Your task to perform on an android device: add a contact Image 0: 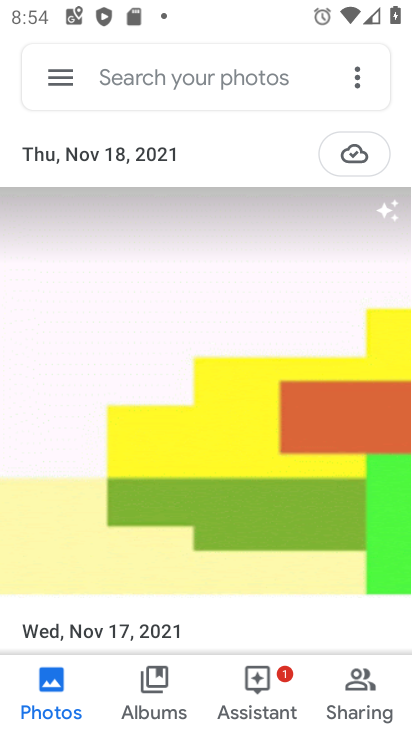
Step 0: press home button
Your task to perform on an android device: add a contact Image 1: 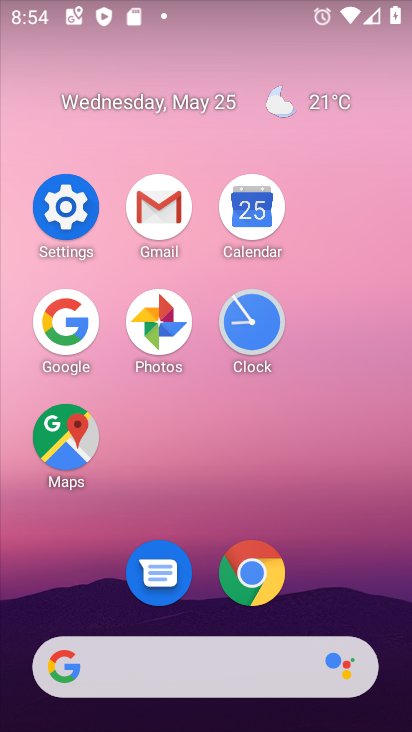
Step 1: drag from (315, 574) to (341, 204)
Your task to perform on an android device: add a contact Image 2: 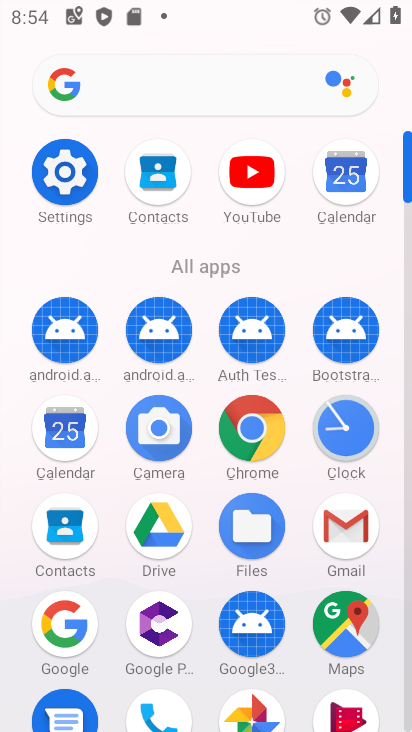
Step 2: click (75, 510)
Your task to perform on an android device: add a contact Image 3: 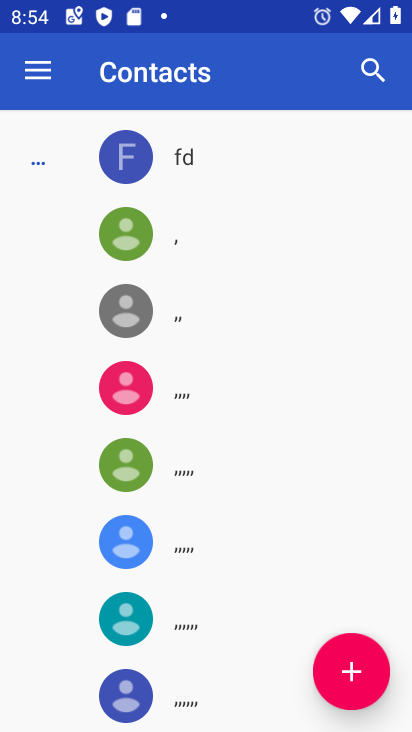
Step 3: click (339, 694)
Your task to perform on an android device: add a contact Image 4: 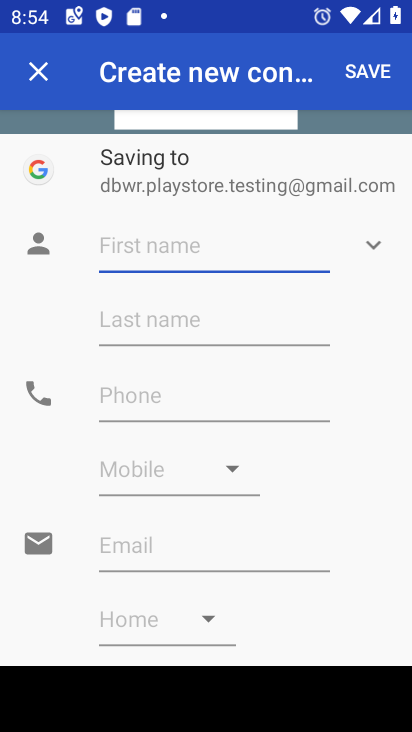
Step 4: type "kity"
Your task to perform on an android device: add a contact Image 5: 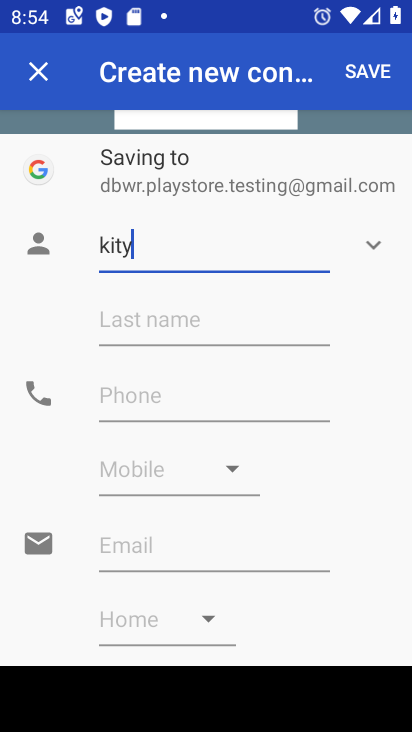
Step 5: click (242, 397)
Your task to perform on an android device: add a contact Image 6: 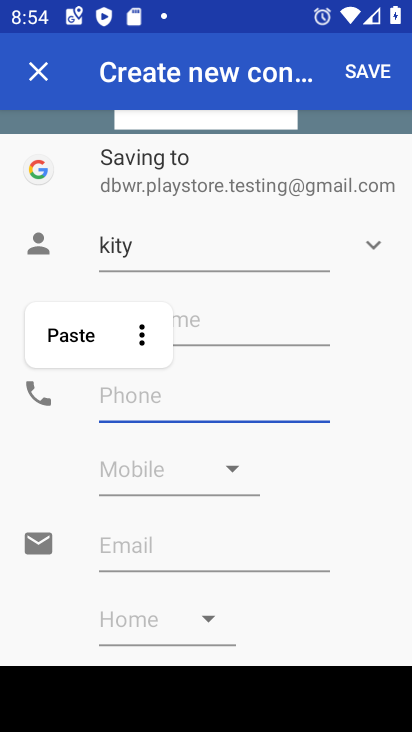
Step 6: type "3344552234"
Your task to perform on an android device: add a contact Image 7: 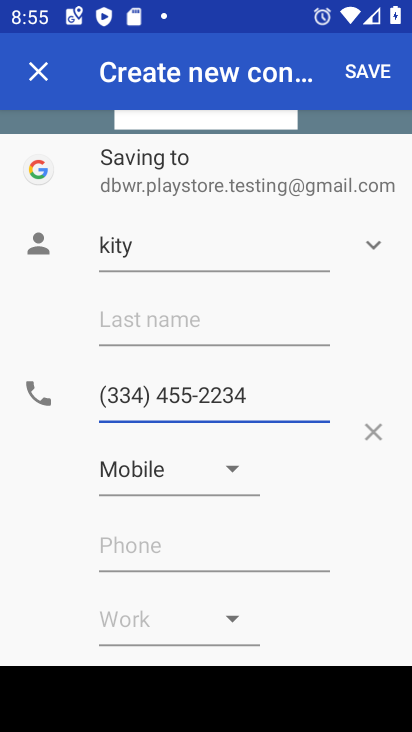
Step 7: click (349, 70)
Your task to perform on an android device: add a contact Image 8: 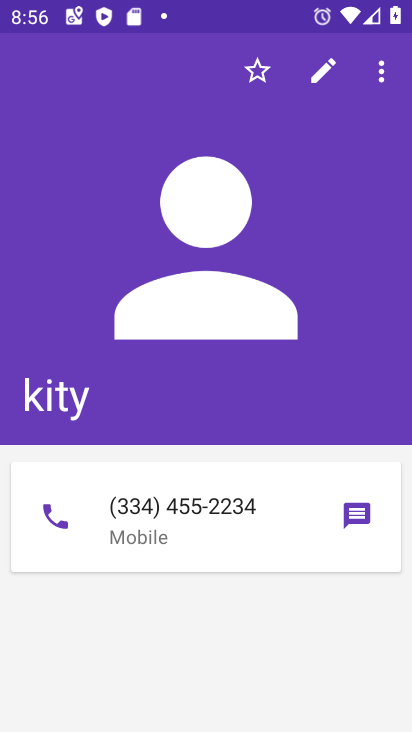
Step 8: task complete